Your task to perform on an android device: Open Google Chrome and click the shortcut for Amazon.com Image 0: 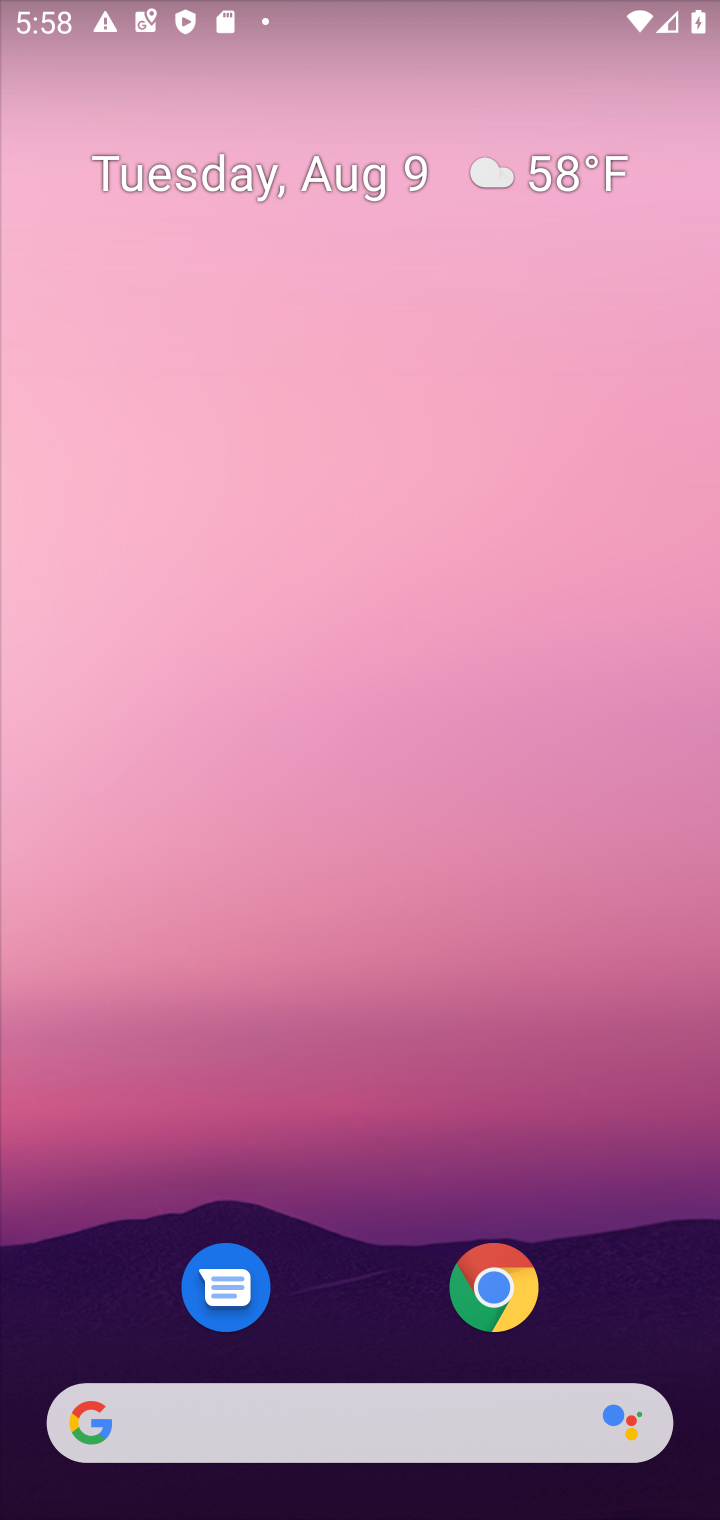
Step 0: click (487, 1273)
Your task to perform on an android device: Open Google Chrome and click the shortcut for Amazon.com Image 1: 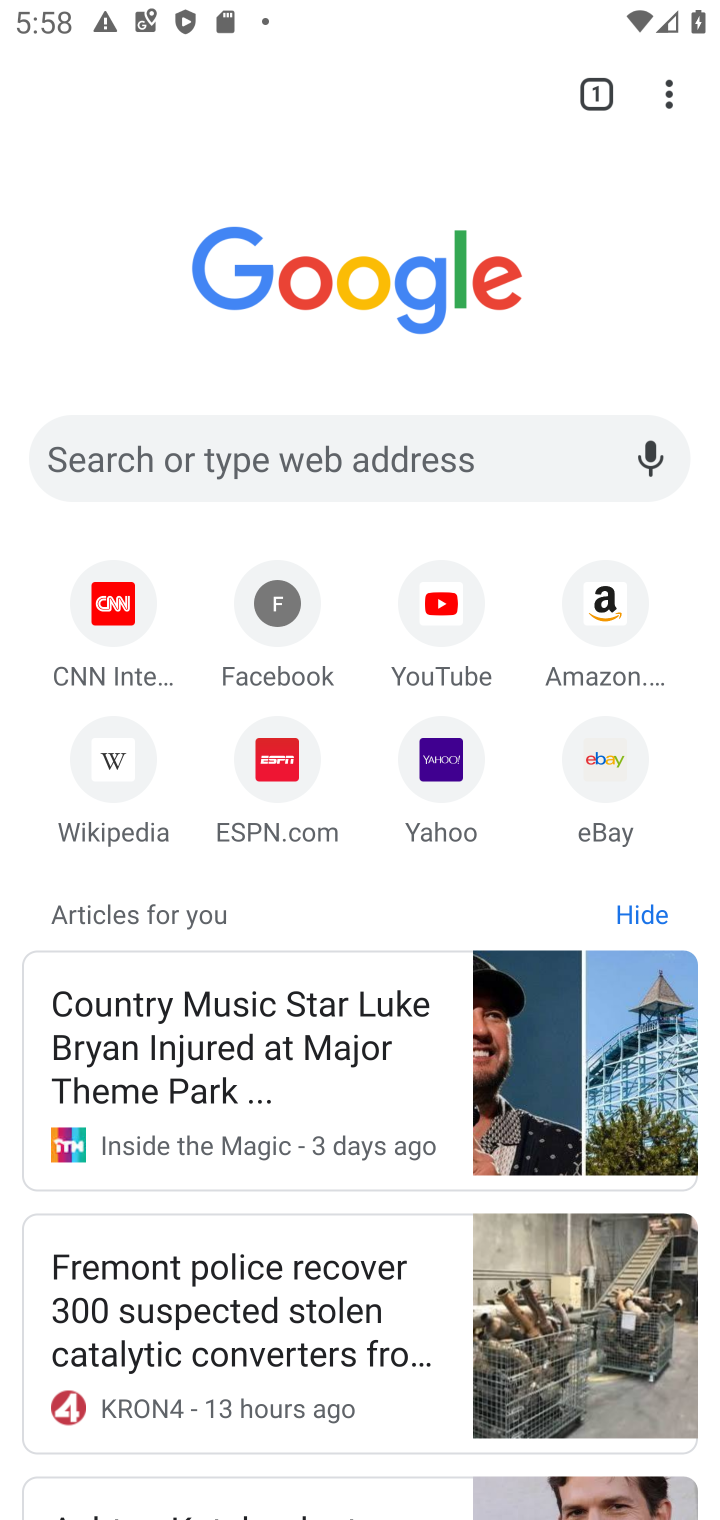
Step 1: click (614, 599)
Your task to perform on an android device: Open Google Chrome and click the shortcut for Amazon.com Image 2: 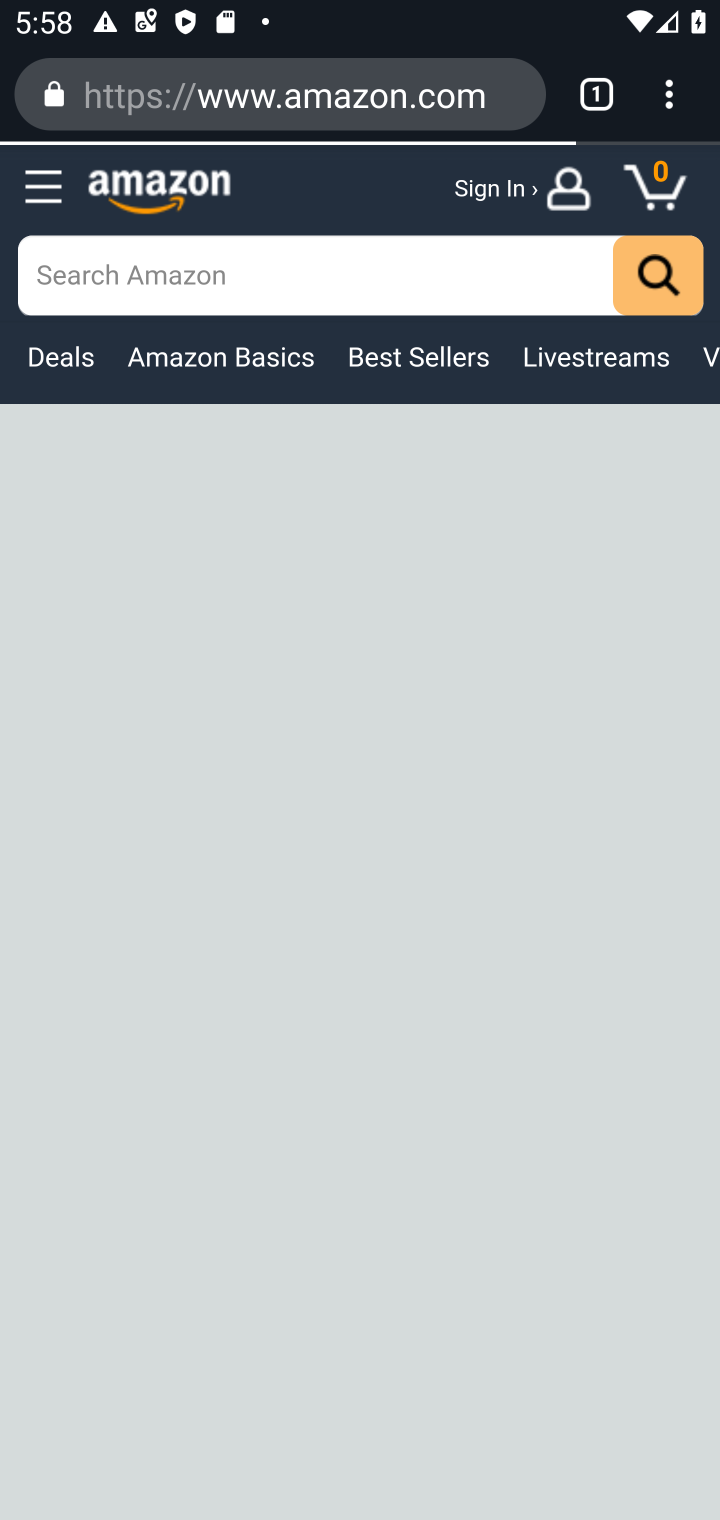
Step 2: task complete